Your task to perform on an android device: show emergency info Image 0: 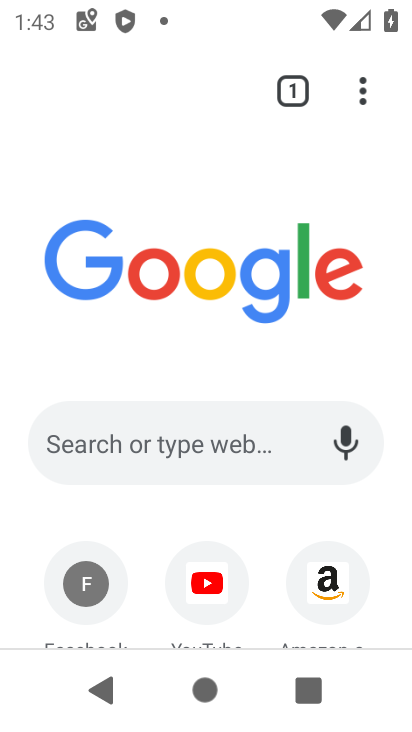
Step 0: press home button
Your task to perform on an android device: show emergency info Image 1: 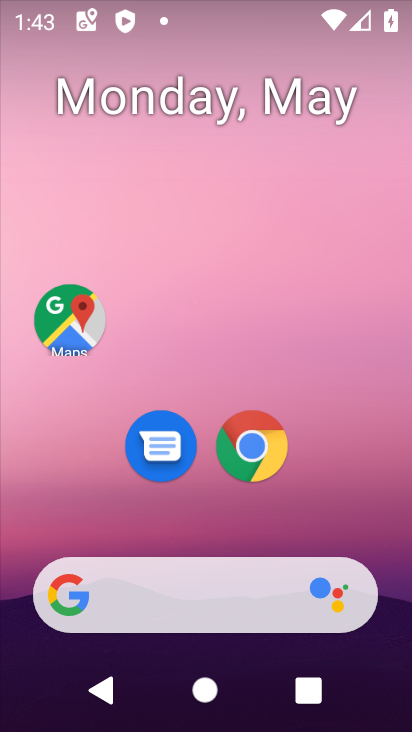
Step 1: drag from (209, 638) to (186, 169)
Your task to perform on an android device: show emergency info Image 2: 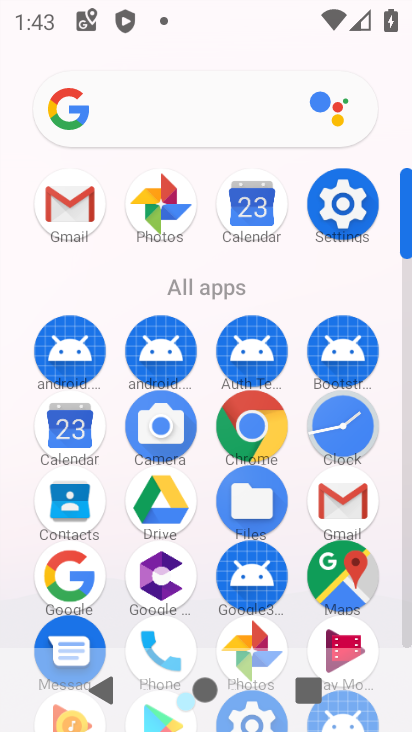
Step 2: click (348, 222)
Your task to perform on an android device: show emergency info Image 3: 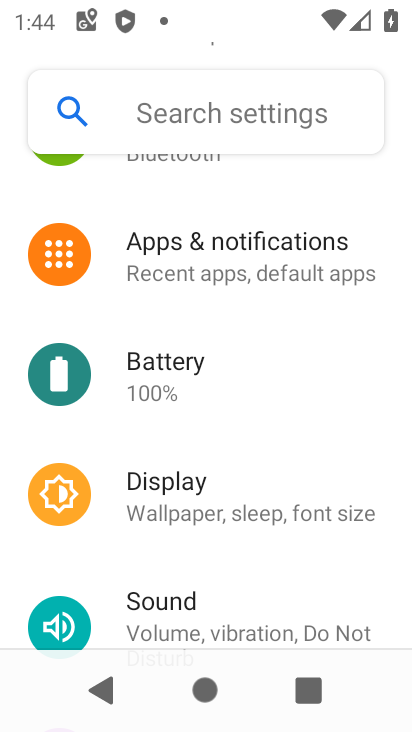
Step 3: drag from (264, 598) to (226, 123)
Your task to perform on an android device: show emergency info Image 4: 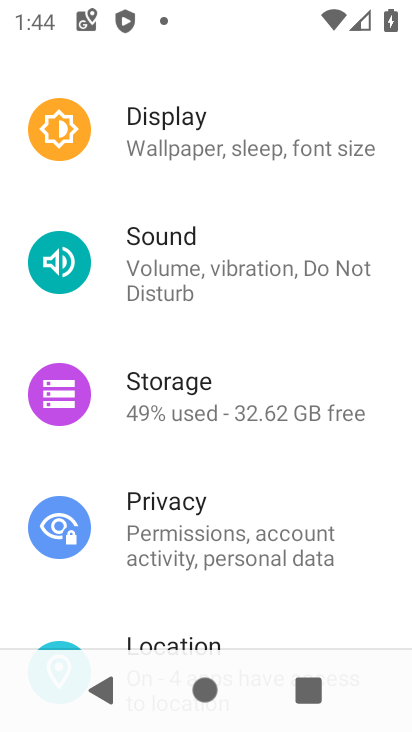
Step 4: drag from (215, 441) to (195, 106)
Your task to perform on an android device: show emergency info Image 5: 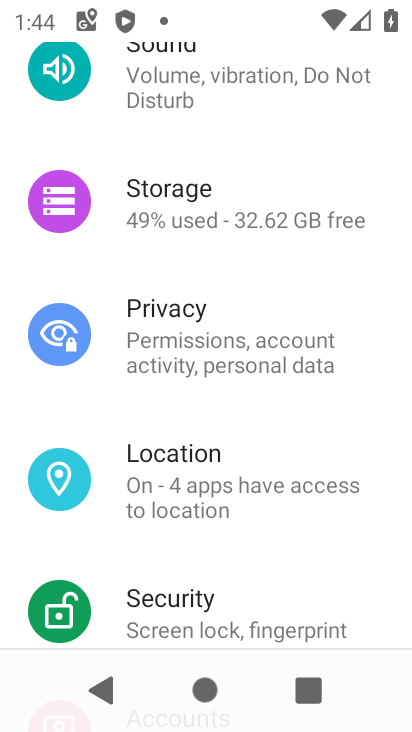
Step 5: drag from (220, 608) to (121, 2)
Your task to perform on an android device: show emergency info Image 6: 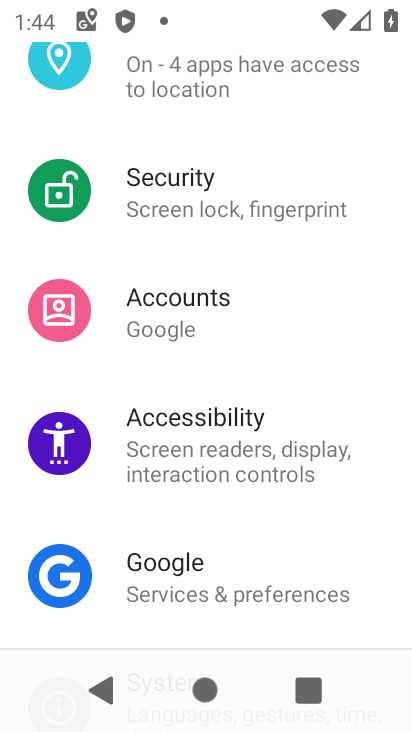
Step 6: drag from (207, 491) to (210, 4)
Your task to perform on an android device: show emergency info Image 7: 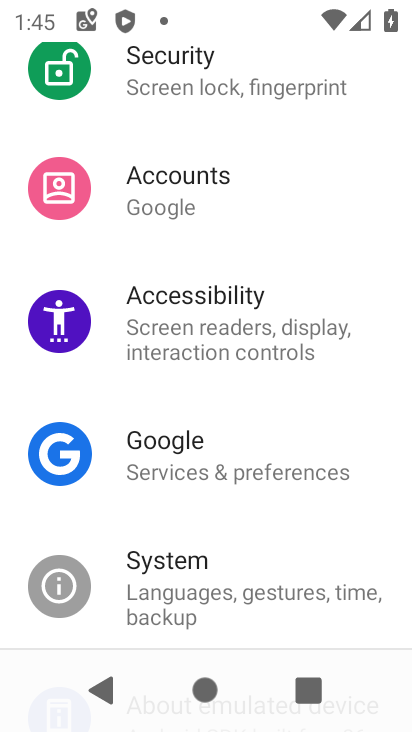
Step 7: drag from (216, 413) to (212, 144)
Your task to perform on an android device: show emergency info Image 8: 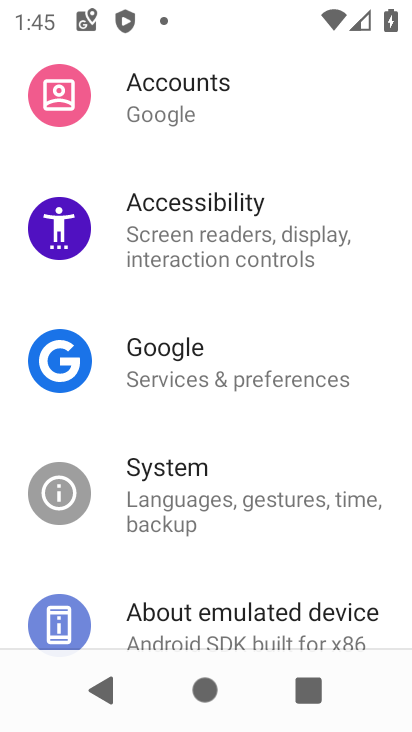
Step 8: click (196, 617)
Your task to perform on an android device: show emergency info Image 9: 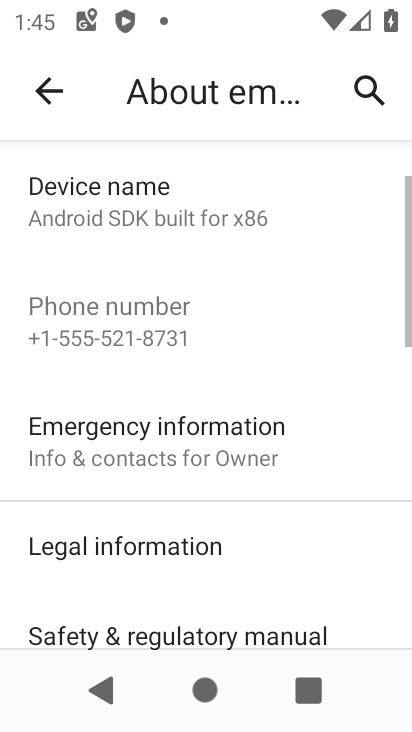
Step 9: click (141, 473)
Your task to perform on an android device: show emergency info Image 10: 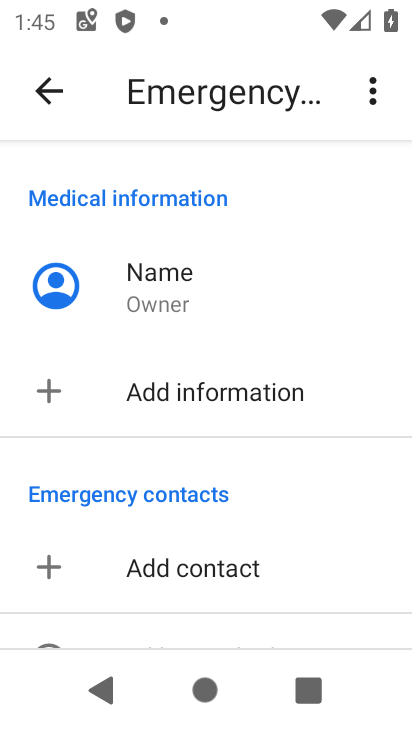
Step 10: task complete